Your task to perform on an android device: add a label to a message in the gmail app Image 0: 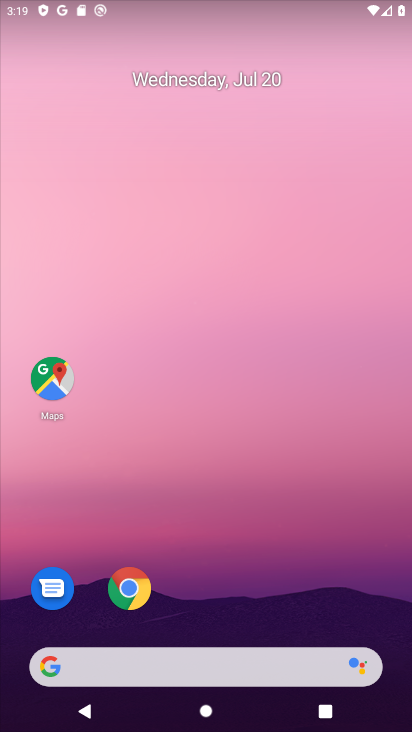
Step 0: drag from (205, 600) to (140, 58)
Your task to perform on an android device: add a label to a message in the gmail app Image 1: 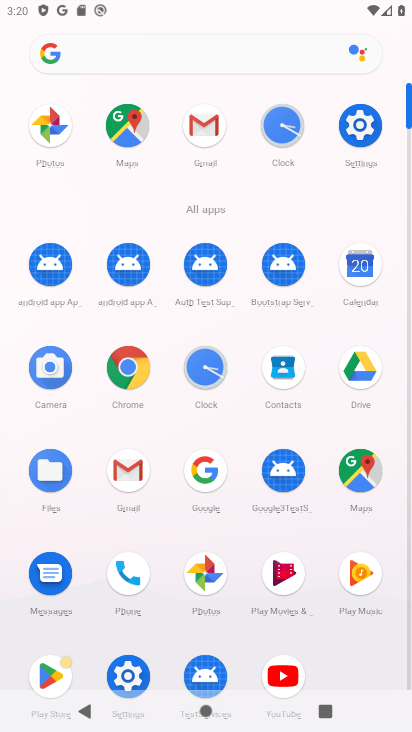
Step 1: click (202, 123)
Your task to perform on an android device: add a label to a message in the gmail app Image 2: 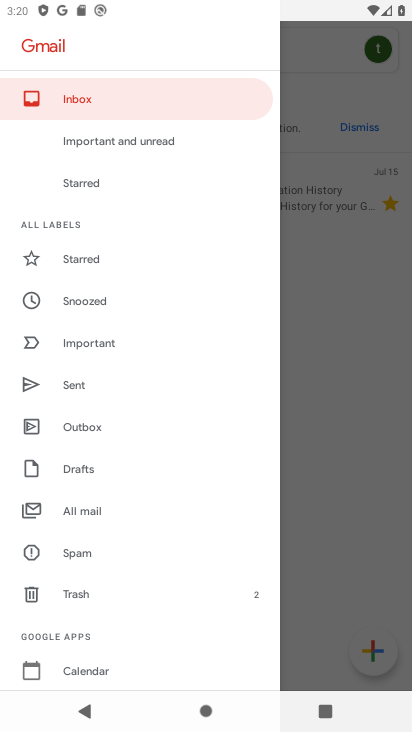
Step 2: click (336, 464)
Your task to perform on an android device: add a label to a message in the gmail app Image 3: 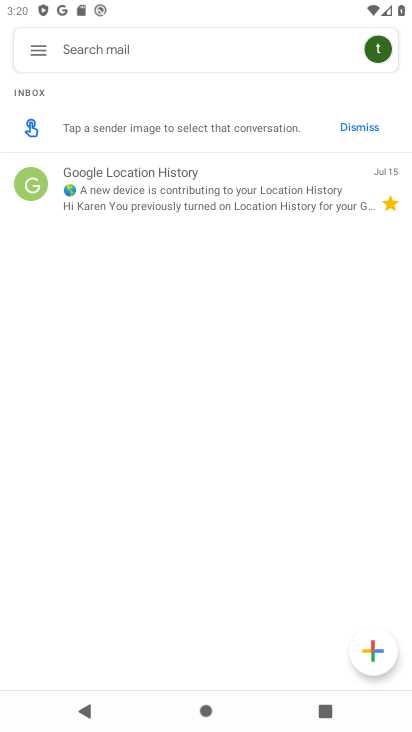
Step 3: click (33, 179)
Your task to perform on an android device: add a label to a message in the gmail app Image 4: 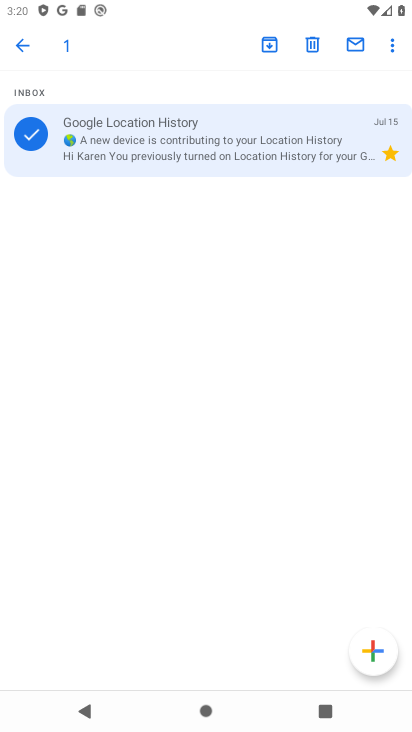
Step 4: click (399, 58)
Your task to perform on an android device: add a label to a message in the gmail app Image 5: 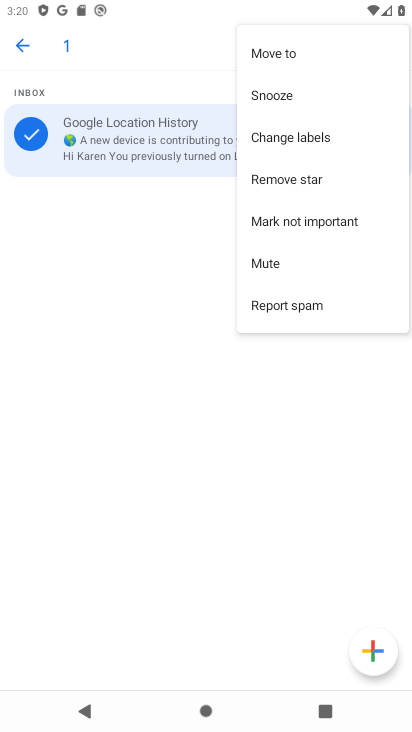
Step 5: click (331, 131)
Your task to perform on an android device: add a label to a message in the gmail app Image 6: 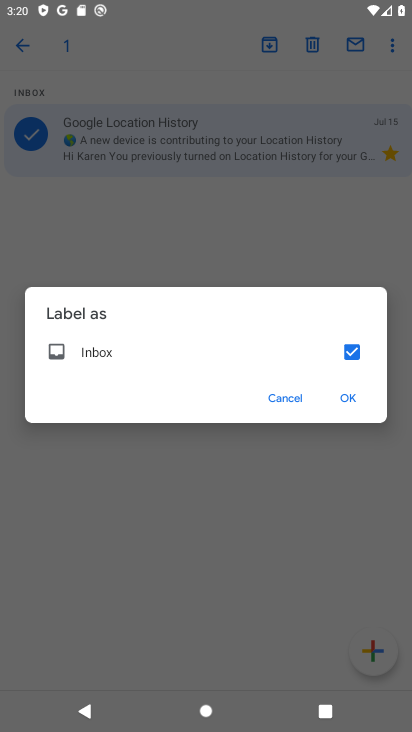
Step 6: click (354, 349)
Your task to perform on an android device: add a label to a message in the gmail app Image 7: 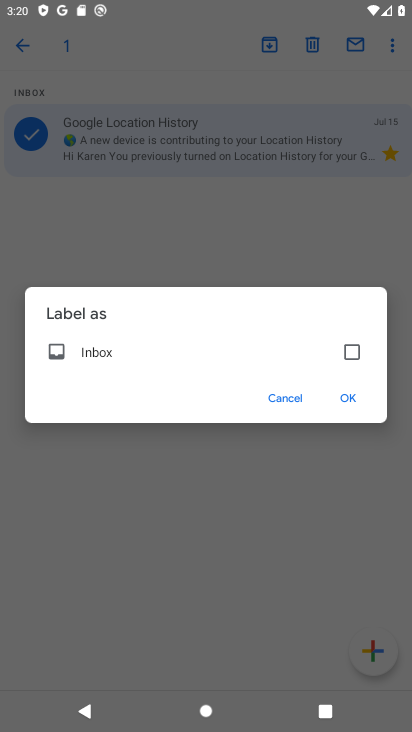
Step 7: click (353, 402)
Your task to perform on an android device: add a label to a message in the gmail app Image 8: 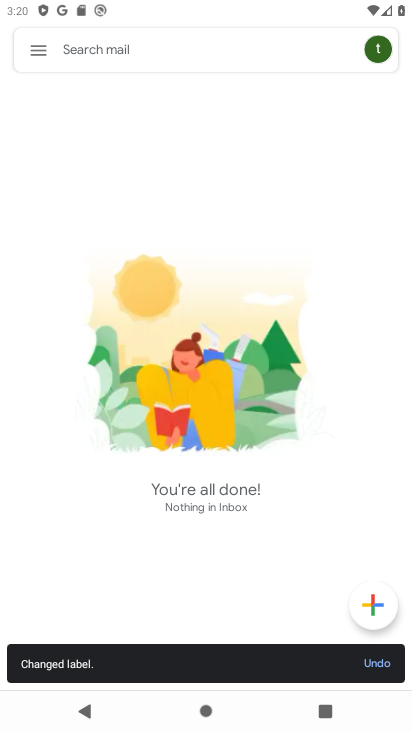
Step 8: task complete